Your task to perform on an android device: turn on location history Image 0: 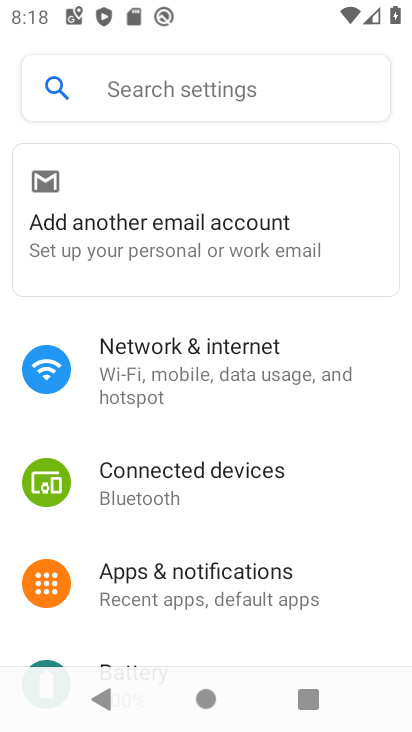
Step 0: press home button
Your task to perform on an android device: turn on location history Image 1: 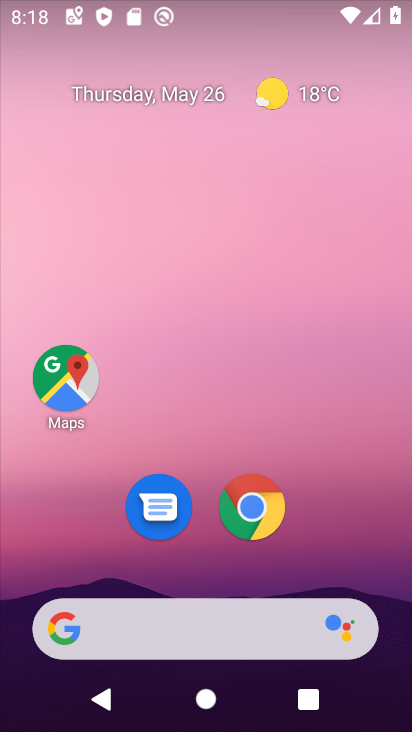
Step 1: drag from (250, 645) to (284, 133)
Your task to perform on an android device: turn on location history Image 2: 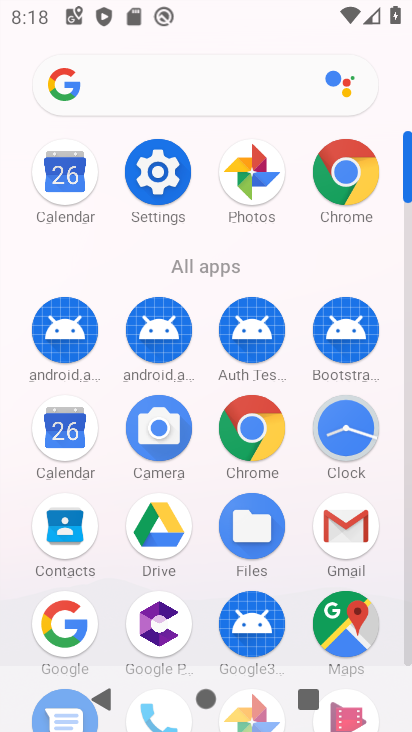
Step 2: click (182, 165)
Your task to perform on an android device: turn on location history Image 3: 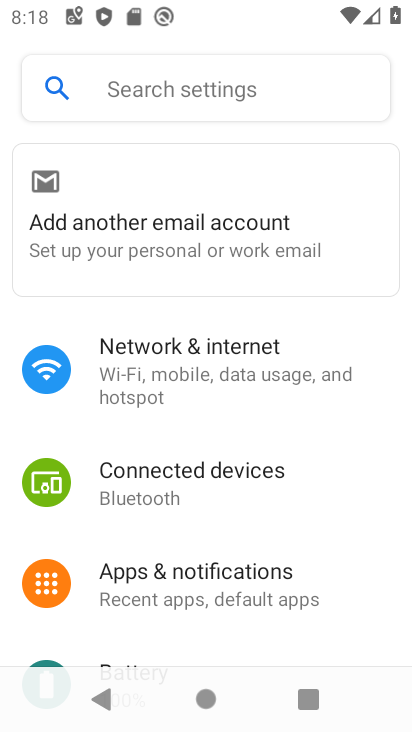
Step 3: click (152, 98)
Your task to perform on an android device: turn on location history Image 4: 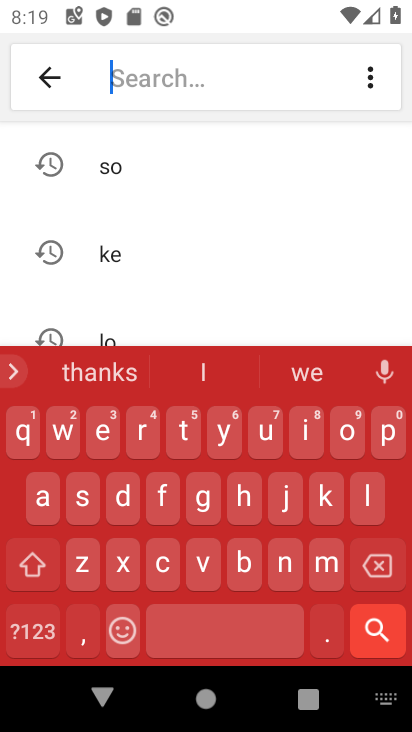
Step 4: click (114, 330)
Your task to perform on an android device: turn on location history Image 5: 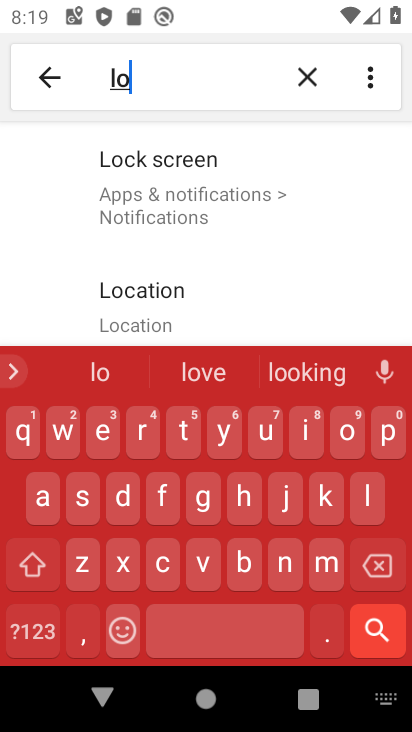
Step 5: click (160, 279)
Your task to perform on an android device: turn on location history Image 6: 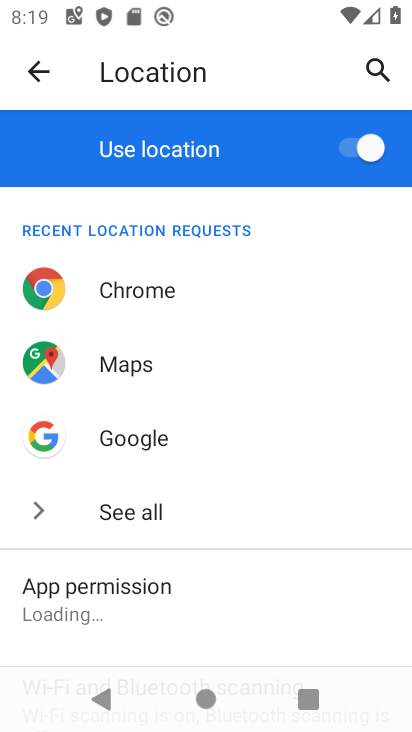
Step 6: drag from (147, 600) to (128, 355)
Your task to perform on an android device: turn on location history Image 7: 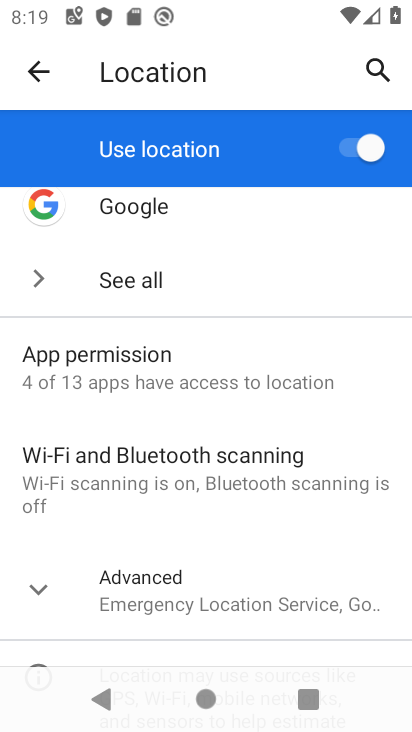
Step 7: click (102, 601)
Your task to perform on an android device: turn on location history Image 8: 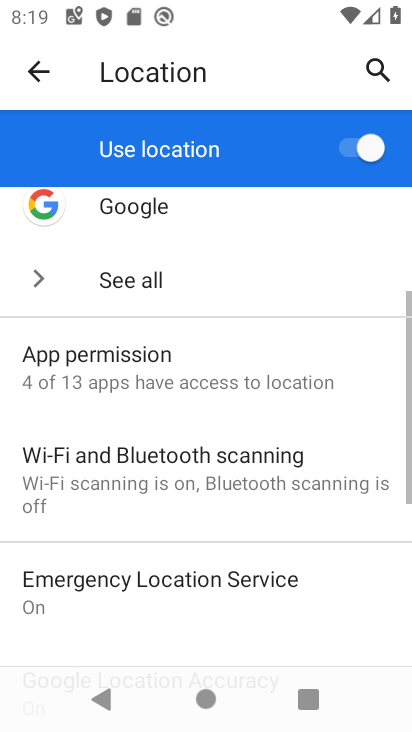
Step 8: drag from (168, 583) to (119, 283)
Your task to perform on an android device: turn on location history Image 9: 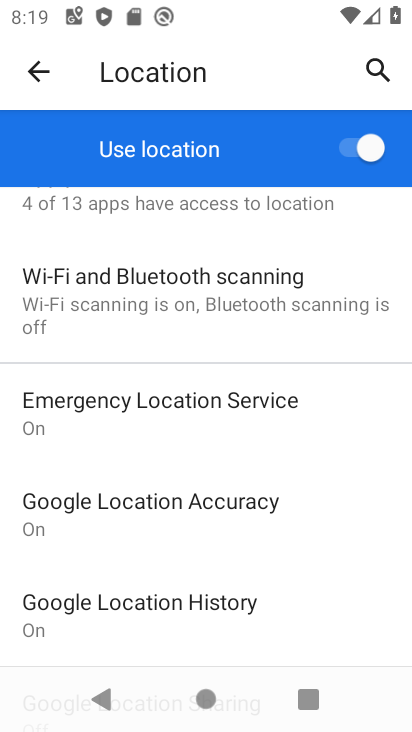
Step 9: click (187, 599)
Your task to perform on an android device: turn on location history Image 10: 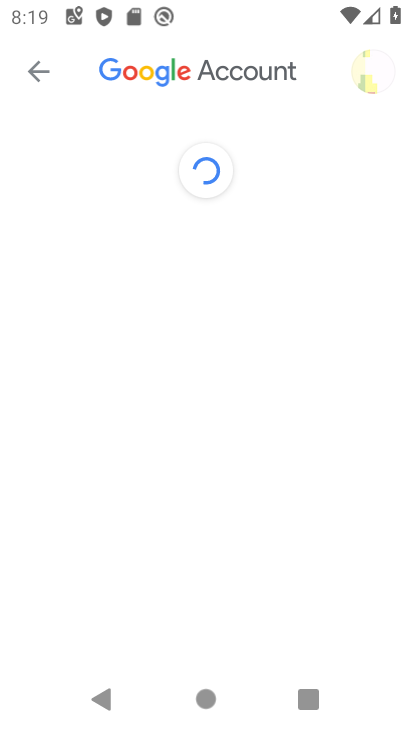
Step 10: drag from (235, 523) to (178, 167)
Your task to perform on an android device: turn on location history Image 11: 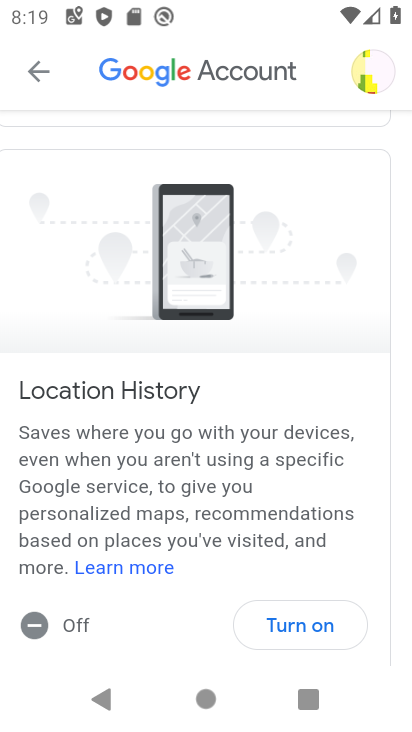
Step 11: drag from (242, 513) to (190, 225)
Your task to perform on an android device: turn on location history Image 12: 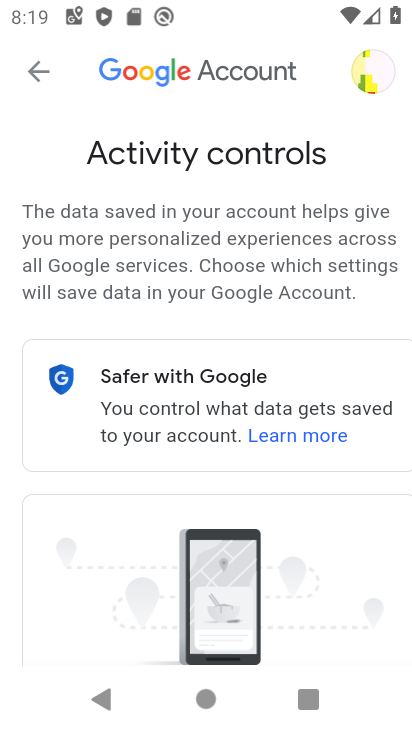
Step 12: drag from (302, 496) to (280, 234)
Your task to perform on an android device: turn on location history Image 13: 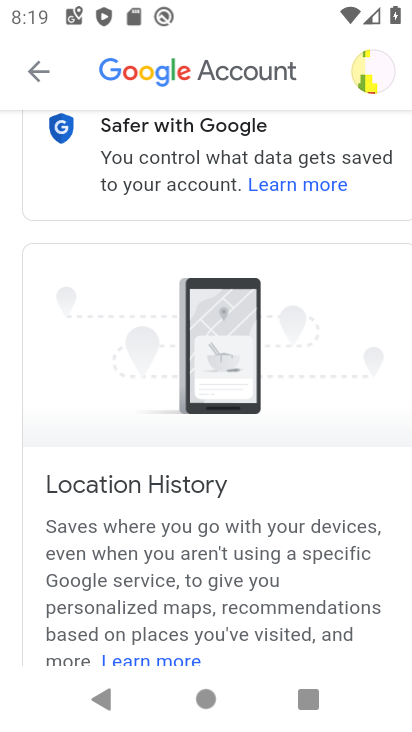
Step 13: drag from (291, 532) to (252, 240)
Your task to perform on an android device: turn on location history Image 14: 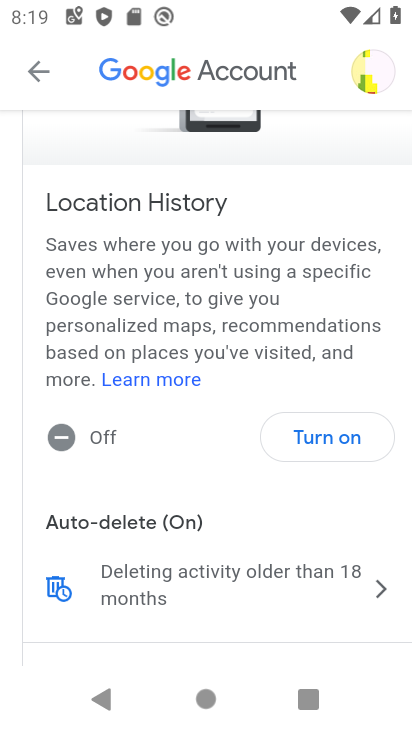
Step 14: click (314, 447)
Your task to perform on an android device: turn on location history Image 15: 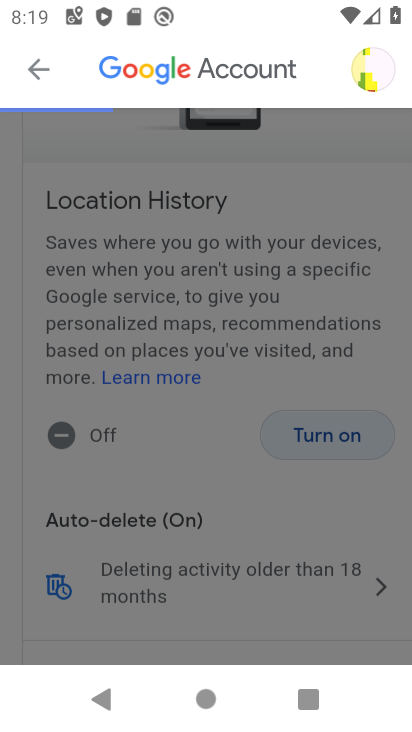
Step 15: task complete